Your task to perform on an android device: move a message to another label in the gmail app Image 0: 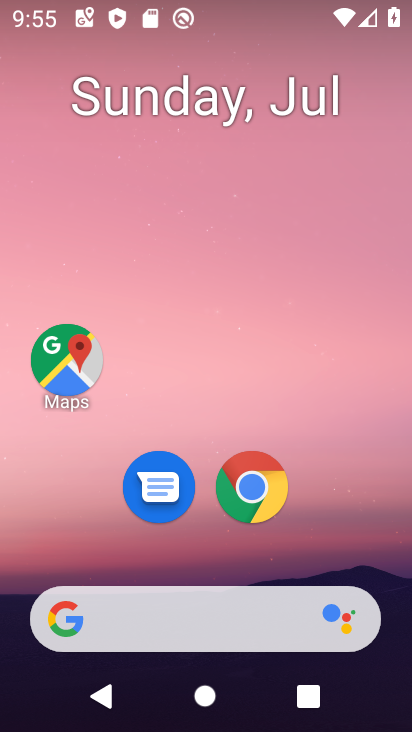
Step 0: drag from (198, 526) to (258, 9)
Your task to perform on an android device: move a message to another label in the gmail app Image 1: 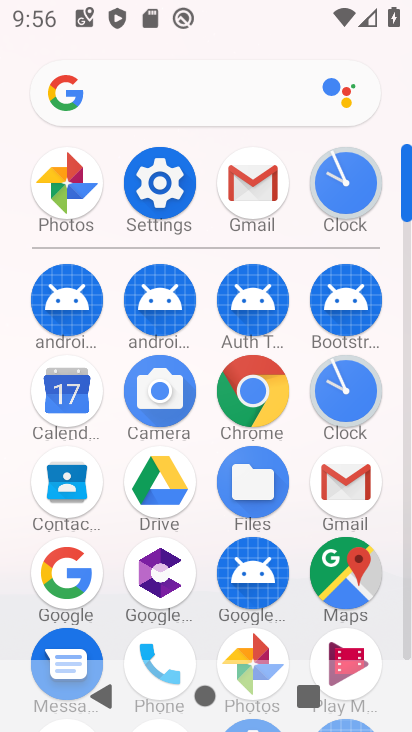
Step 1: click (246, 180)
Your task to perform on an android device: move a message to another label in the gmail app Image 2: 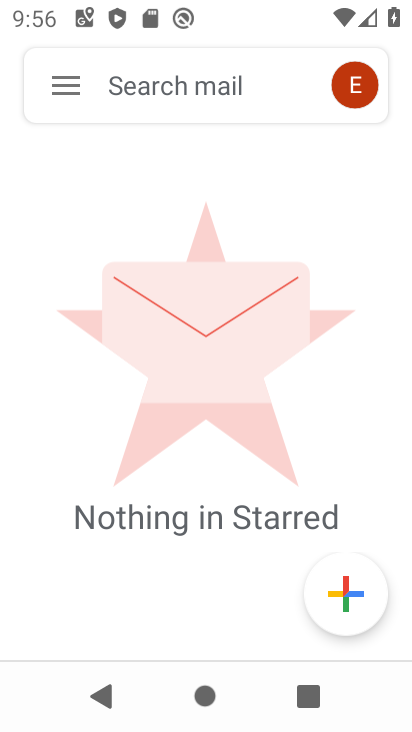
Step 2: click (64, 83)
Your task to perform on an android device: move a message to another label in the gmail app Image 3: 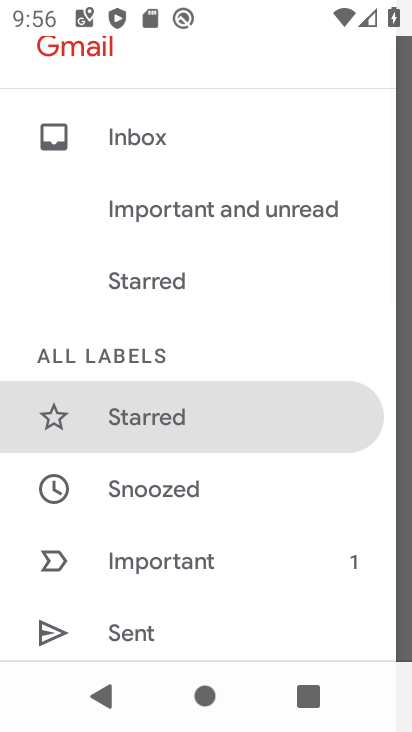
Step 3: drag from (177, 600) to (258, 57)
Your task to perform on an android device: move a message to another label in the gmail app Image 4: 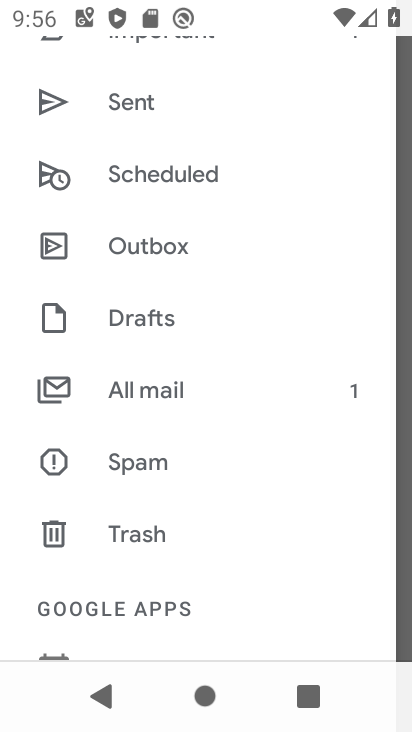
Step 4: click (162, 392)
Your task to perform on an android device: move a message to another label in the gmail app Image 5: 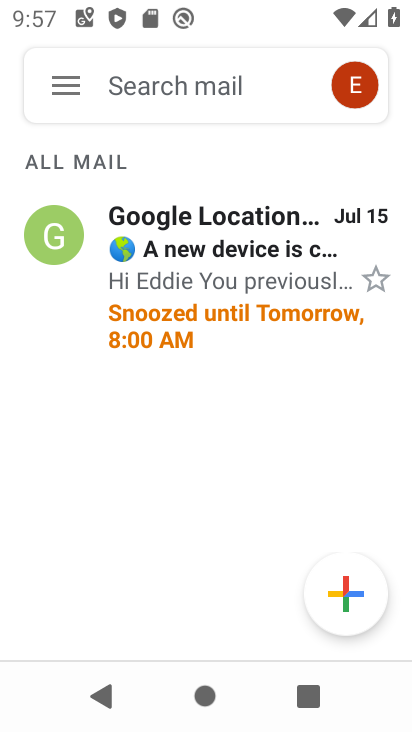
Step 5: click (199, 241)
Your task to perform on an android device: move a message to another label in the gmail app Image 6: 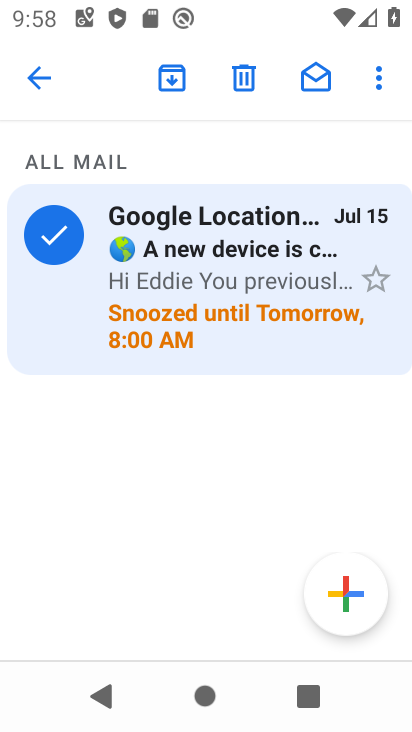
Step 6: click (388, 74)
Your task to perform on an android device: move a message to another label in the gmail app Image 7: 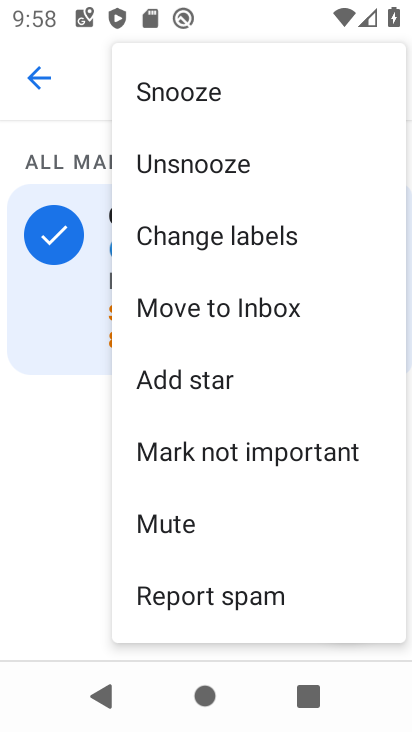
Step 7: click (213, 302)
Your task to perform on an android device: move a message to another label in the gmail app Image 8: 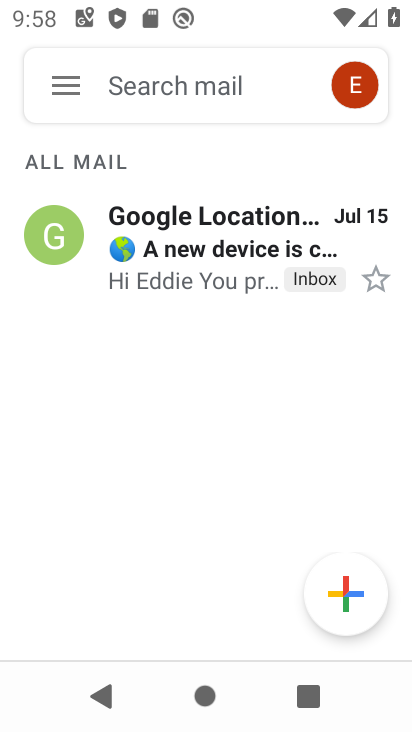
Step 8: task complete